Your task to perform on an android device: find photos in the google photos app Image 0: 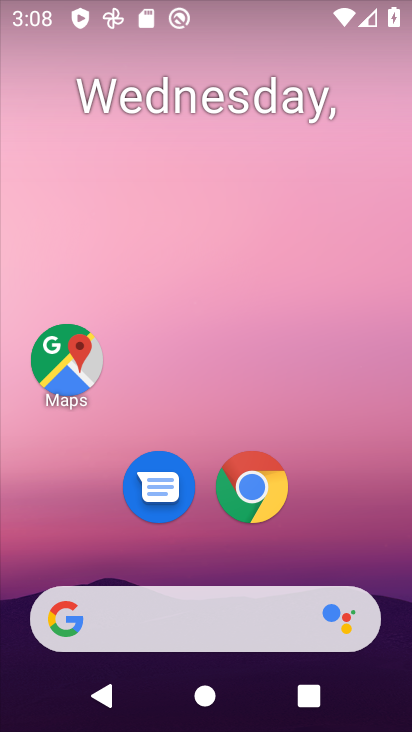
Step 0: drag from (355, 370) to (359, 134)
Your task to perform on an android device: find photos in the google photos app Image 1: 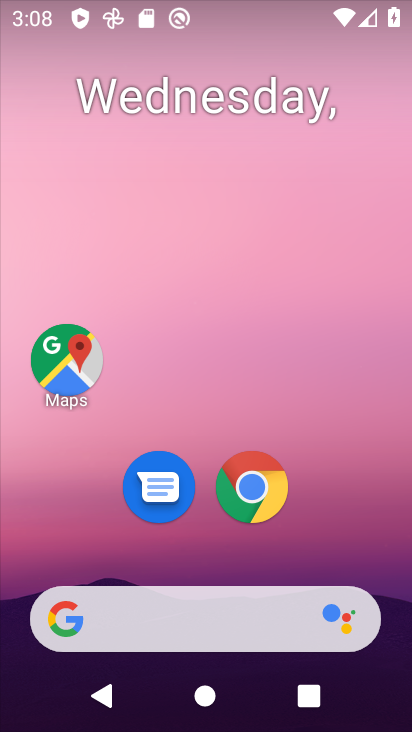
Step 1: drag from (378, 545) to (367, 131)
Your task to perform on an android device: find photos in the google photos app Image 2: 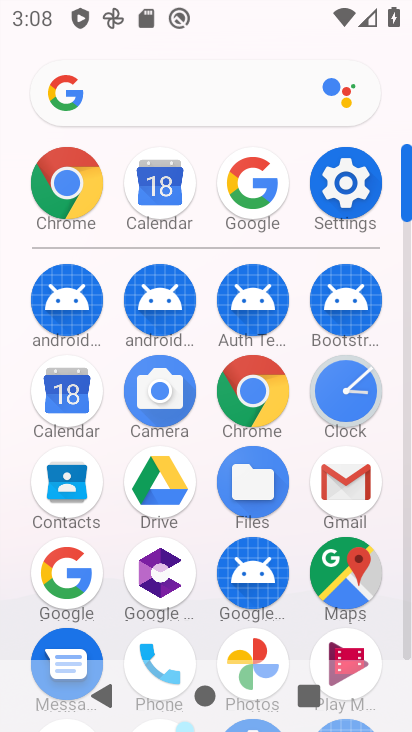
Step 2: drag from (392, 610) to (389, 277)
Your task to perform on an android device: find photos in the google photos app Image 3: 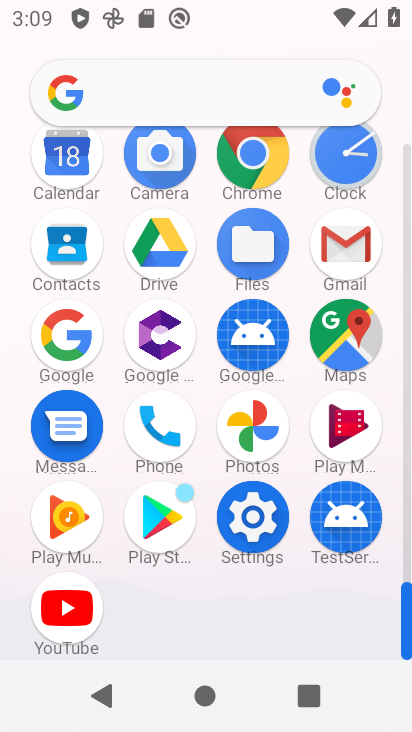
Step 3: click (249, 445)
Your task to perform on an android device: find photos in the google photos app Image 4: 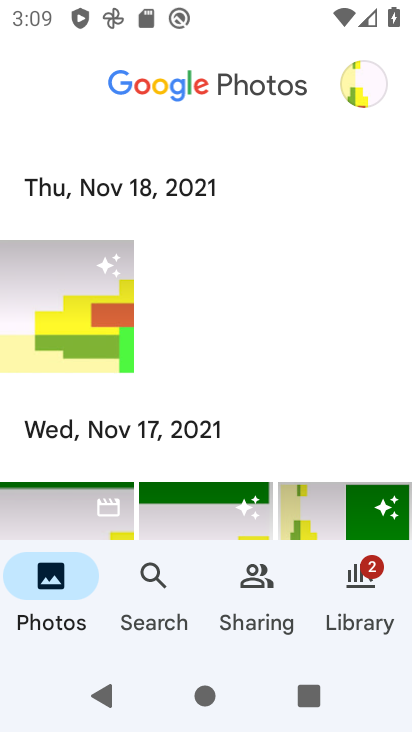
Step 4: click (82, 311)
Your task to perform on an android device: find photos in the google photos app Image 5: 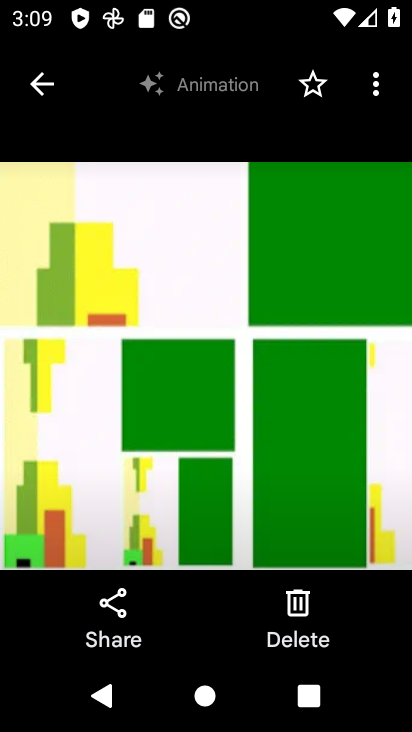
Step 5: task complete